Your task to perform on an android device: Open the calendar app, open the side menu, and click the "Day" option Image 0: 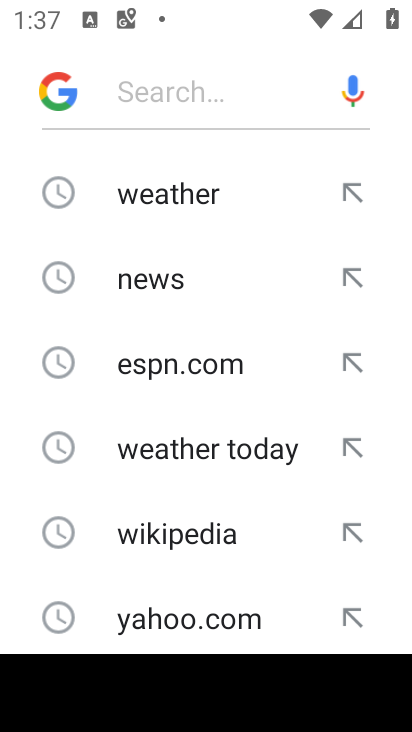
Step 0: press home button
Your task to perform on an android device: Open the calendar app, open the side menu, and click the "Day" option Image 1: 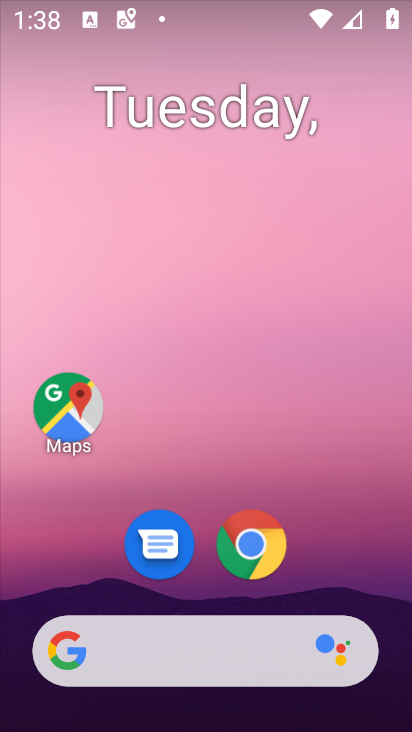
Step 1: drag from (398, 635) to (337, 69)
Your task to perform on an android device: Open the calendar app, open the side menu, and click the "Day" option Image 2: 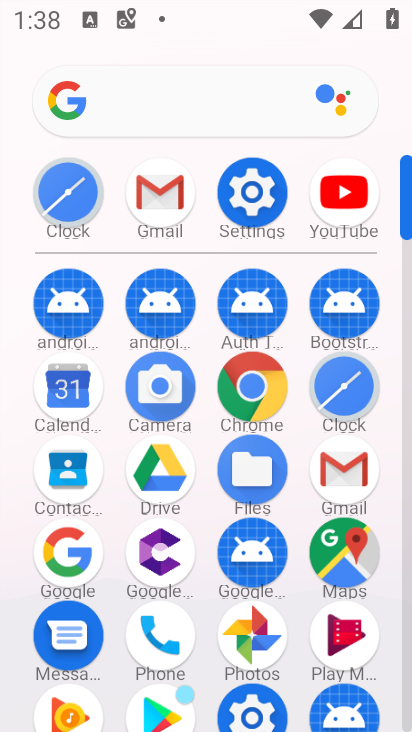
Step 2: click (404, 673)
Your task to perform on an android device: Open the calendar app, open the side menu, and click the "Day" option Image 3: 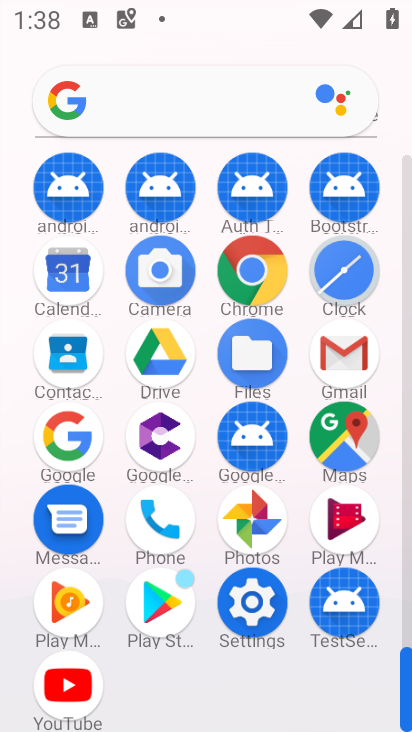
Step 3: click (61, 267)
Your task to perform on an android device: Open the calendar app, open the side menu, and click the "Day" option Image 4: 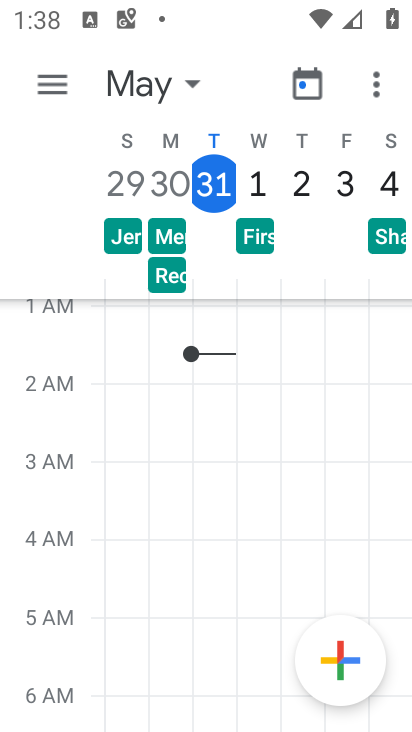
Step 4: click (48, 84)
Your task to perform on an android device: Open the calendar app, open the side menu, and click the "Day" option Image 5: 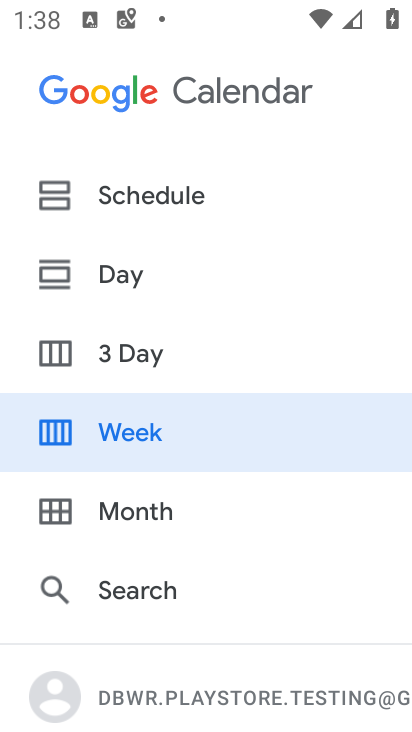
Step 5: click (123, 274)
Your task to perform on an android device: Open the calendar app, open the side menu, and click the "Day" option Image 6: 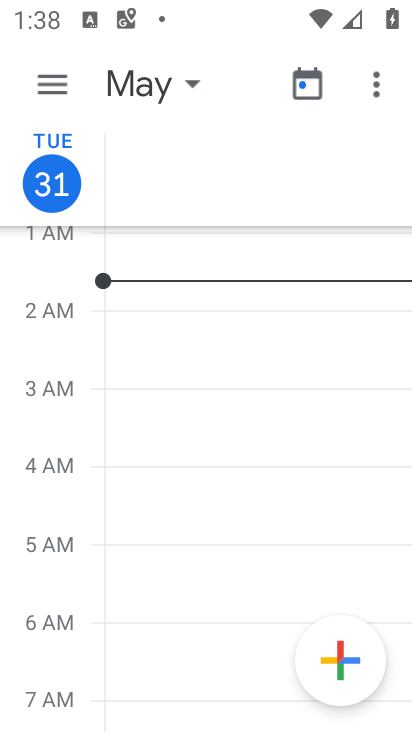
Step 6: task complete